Your task to perform on an android device: Search for Italian restaurants on Maps Image 0: 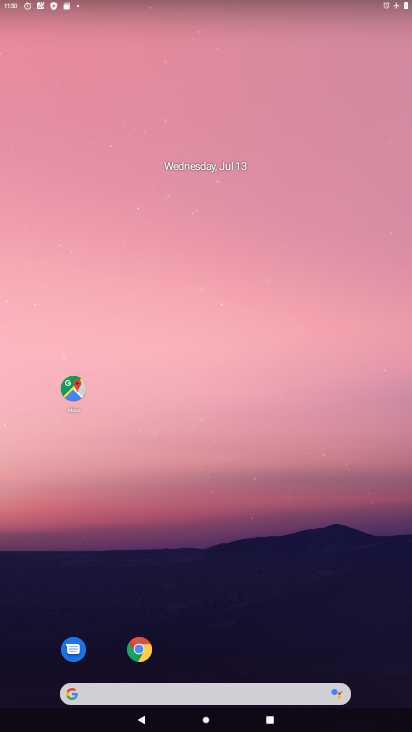
Step 0: click (73, 386)
Your task to perform on an android device: Search for Italian restaurants on Maps Image 1: 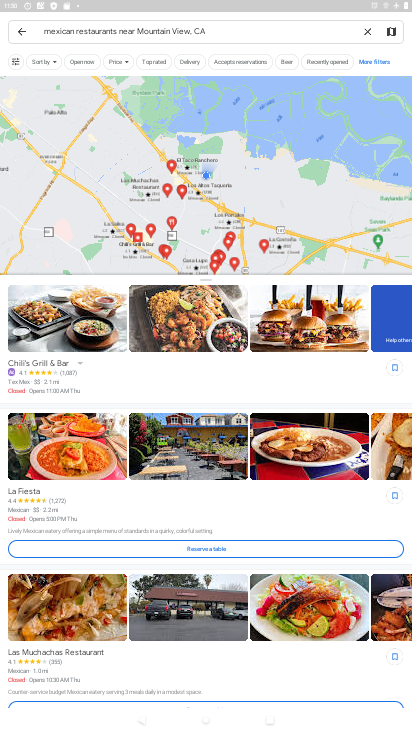
Step 1: click (369, 32)
Your task to perform on an android device: Search for Italian restaurants on Maps Image 2: 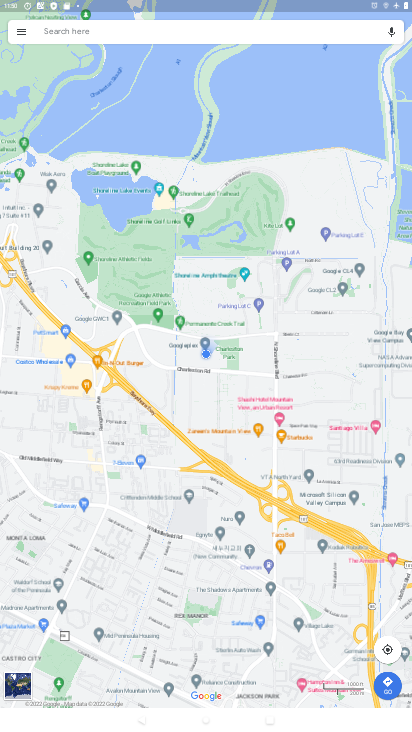
Step 2: click (316, 32)
Your task to perform on an android device: Search for Italian restaurants on Maps Image 3: 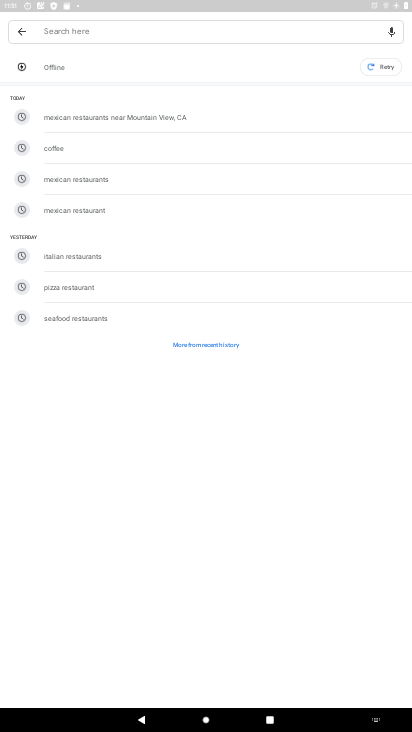
Step 3: type "Italian restaurants"
Your task to perform on an android device: Search for Italian restaurants on Maps Image 4: 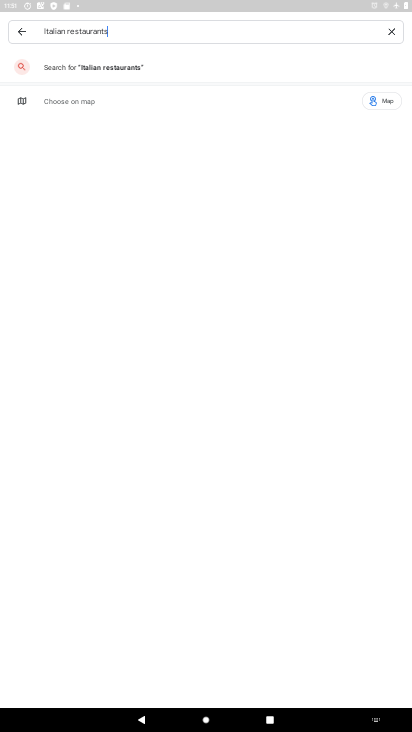
Step 4: type ""
Your task to perform on an android device: Search for Italian restaurants on Maps Image 5: 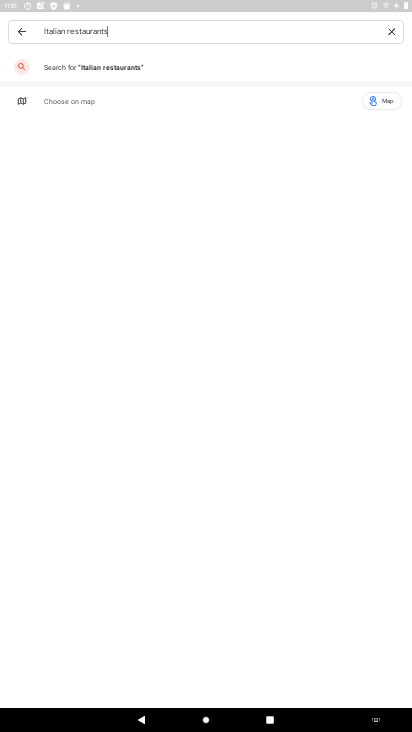
Step 5: task complete